Your task to perform on an android device: Show me popular games on the Play Store Image 0: 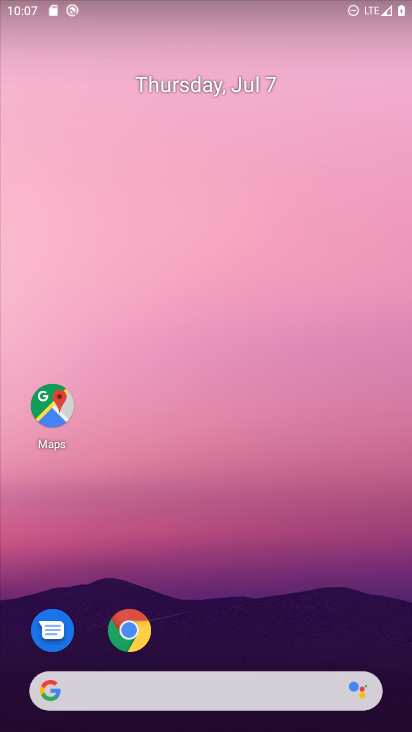
Step 0: drag from (210, 610) to (213, 153)
Your task to perform on an android device: Show me popular games on the Play Store Image 1: 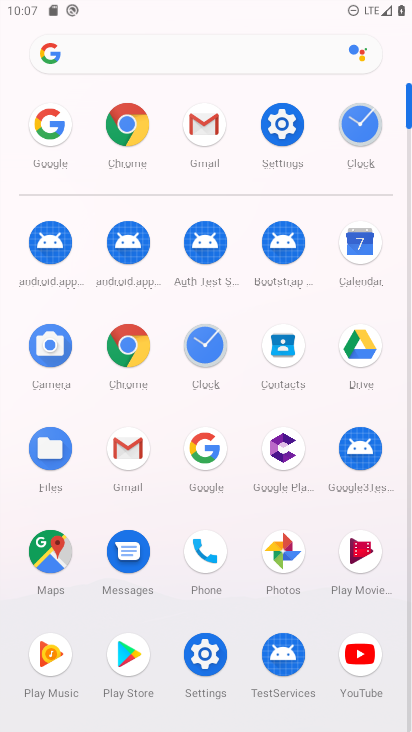
Step 1: click (114, 659)
Your task to perform on an android device: Show me popular games on the Play Store Image 2: 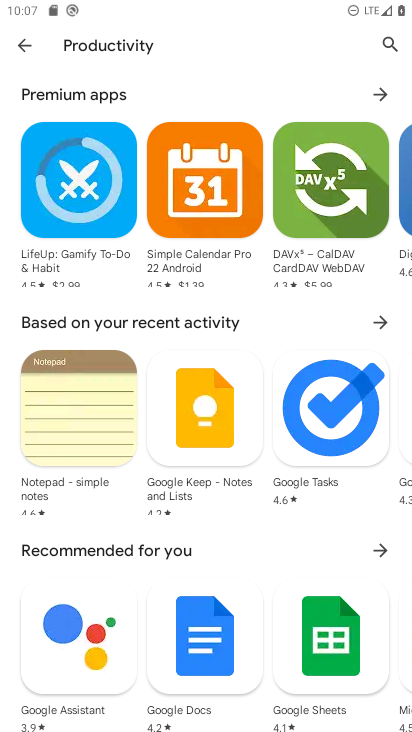
Step 2: click (13, 40)
Your task to perform on an android device: Show me popular games on the Play Store Image 3: 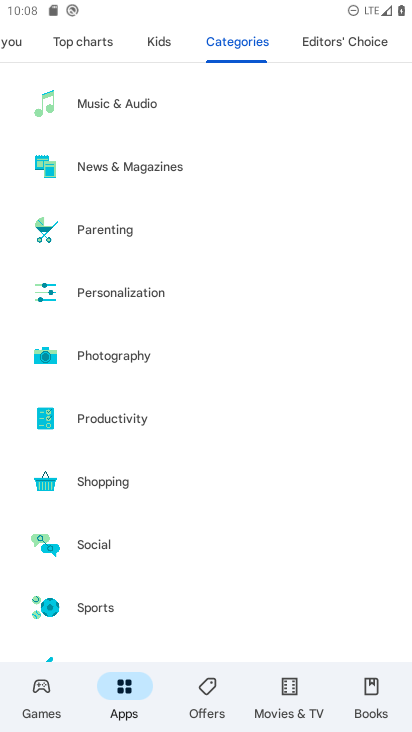
Step 3: click (30, 703)
Your task to perform on an android device: Show me popular games on the Play Store Image 4: 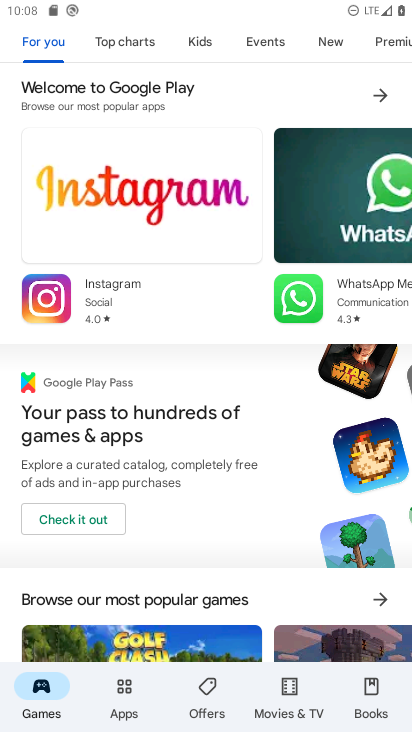
Step 4: click (117, 53)
Your task to perform on an android device: Show me popular games on the Play Store Image 5: 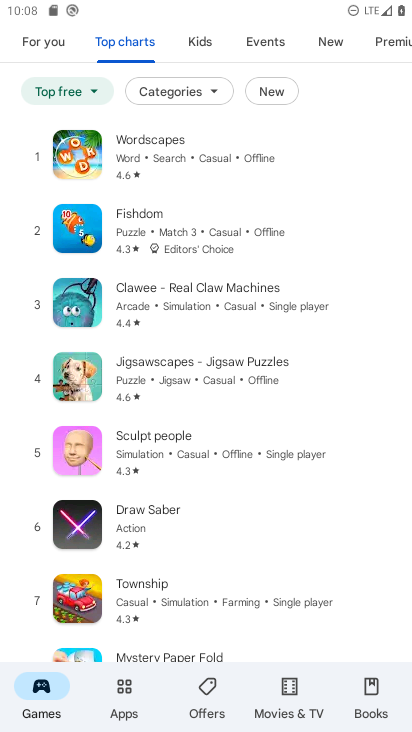
Step 5: task complete